Your task to perform on an android device: Go to accessibility settings Image 0: 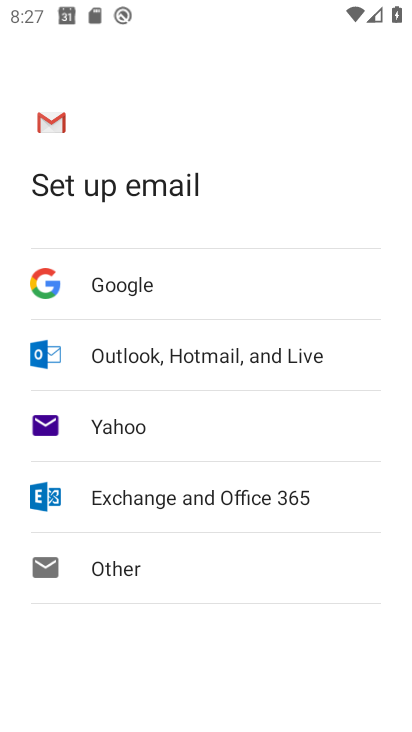
Step 0: press home button
Your task to perform on an android device: Go to accessibility settings Image 1: 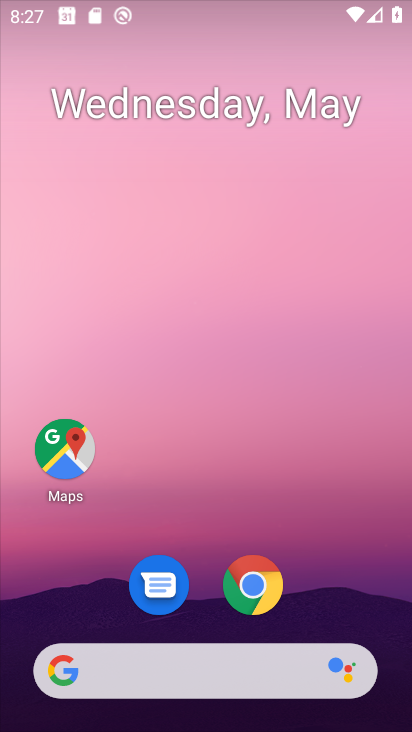
Step 1: drag from (264, 497) to (238, 166)
Your task to perform on an android device: Go to accessibility settings Image 2: 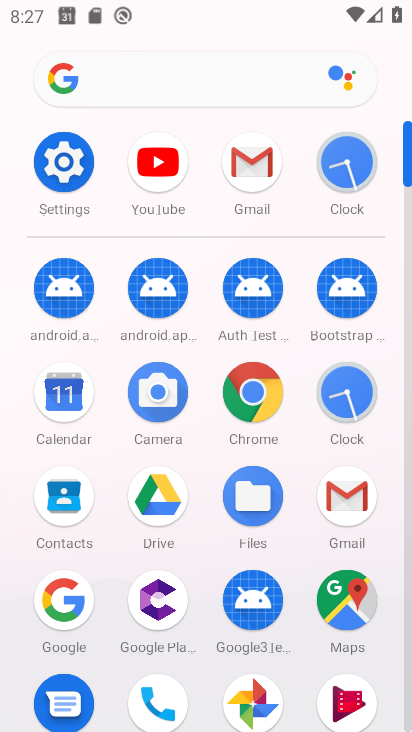
Step 2: click (67, 164)
Your task to perform on an android device: Go to accessibility settings Image 3: 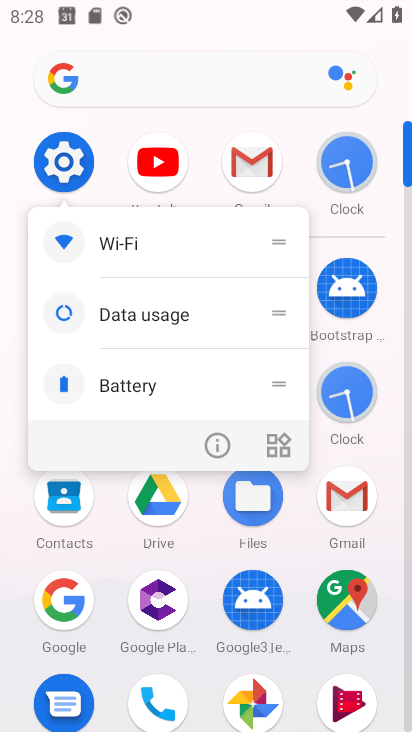
Step 3: click (65, 156)
Your task to perform on an android device: Go to accessibility settings Image 4: 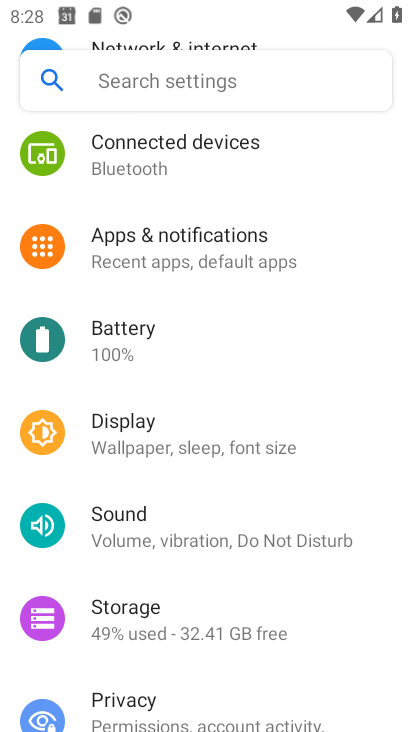
Step 4: drag from (191, 563) to (177, 168)
Your task to perform on an android device: Go to accessibility settings Image 5: 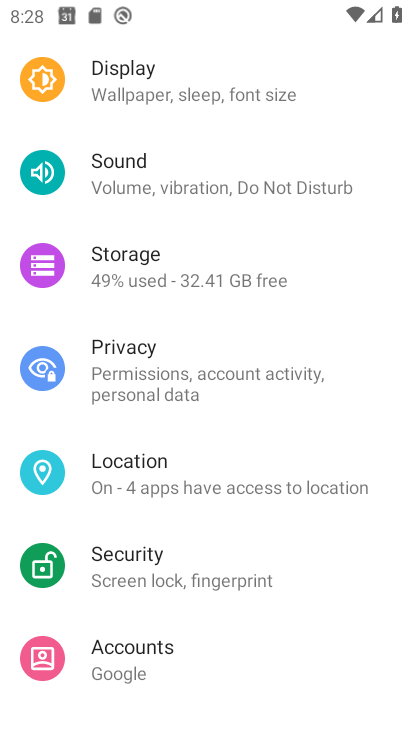
Step 5: drag from (228, 527) to (225, 104)
Your task to perform on an android device: Go to accessibility settings Image 6: 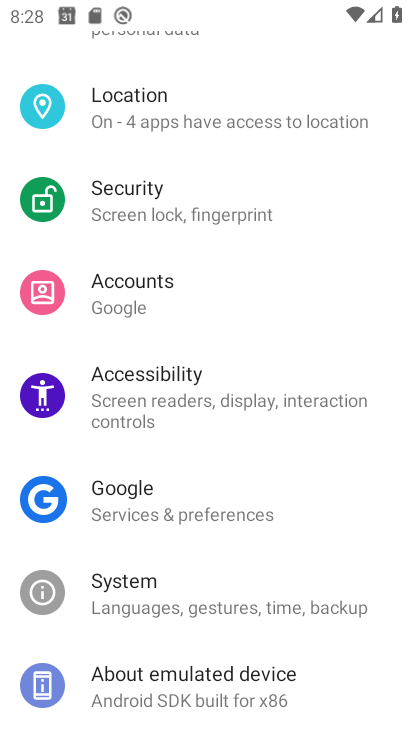
Step 6: click (277, 376)
Your task to perform on an android device: Go to accessibility settings Image 7: 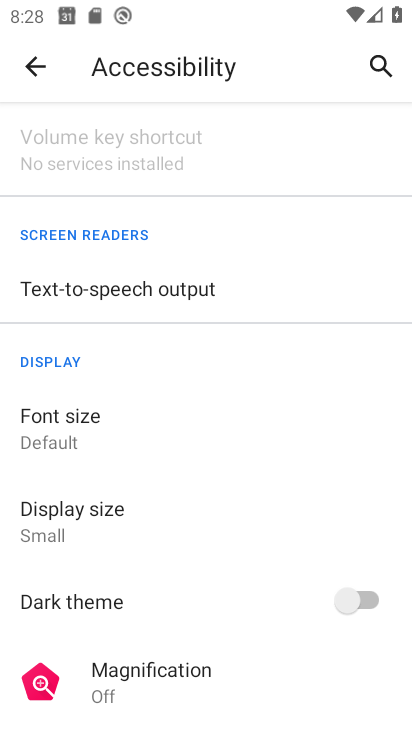
Step 7: task complete